Your task to perform on an android device: install app "Grab" Image 0: 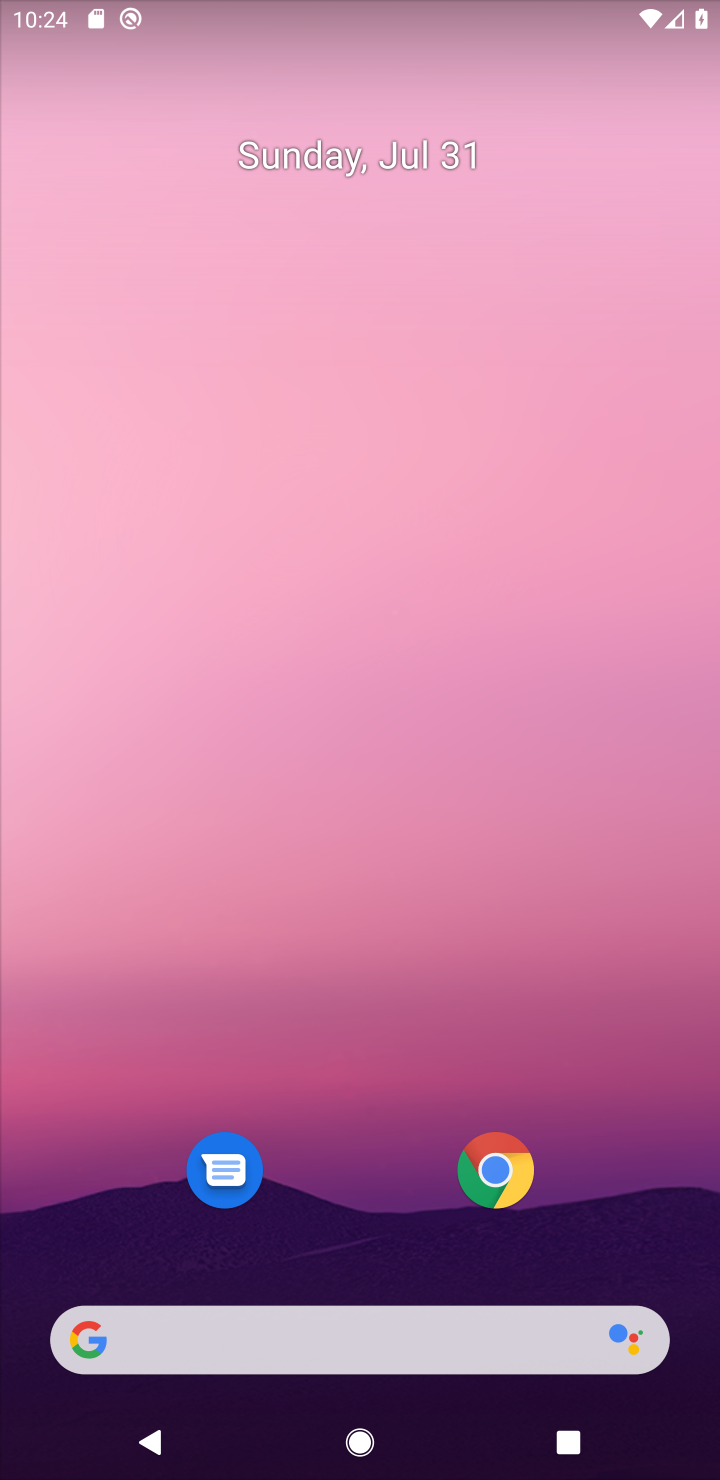
Step 0: drag from (662, 1269) to (194, 9)
Your task to perform on an android device: install app "Grab" Image 1: 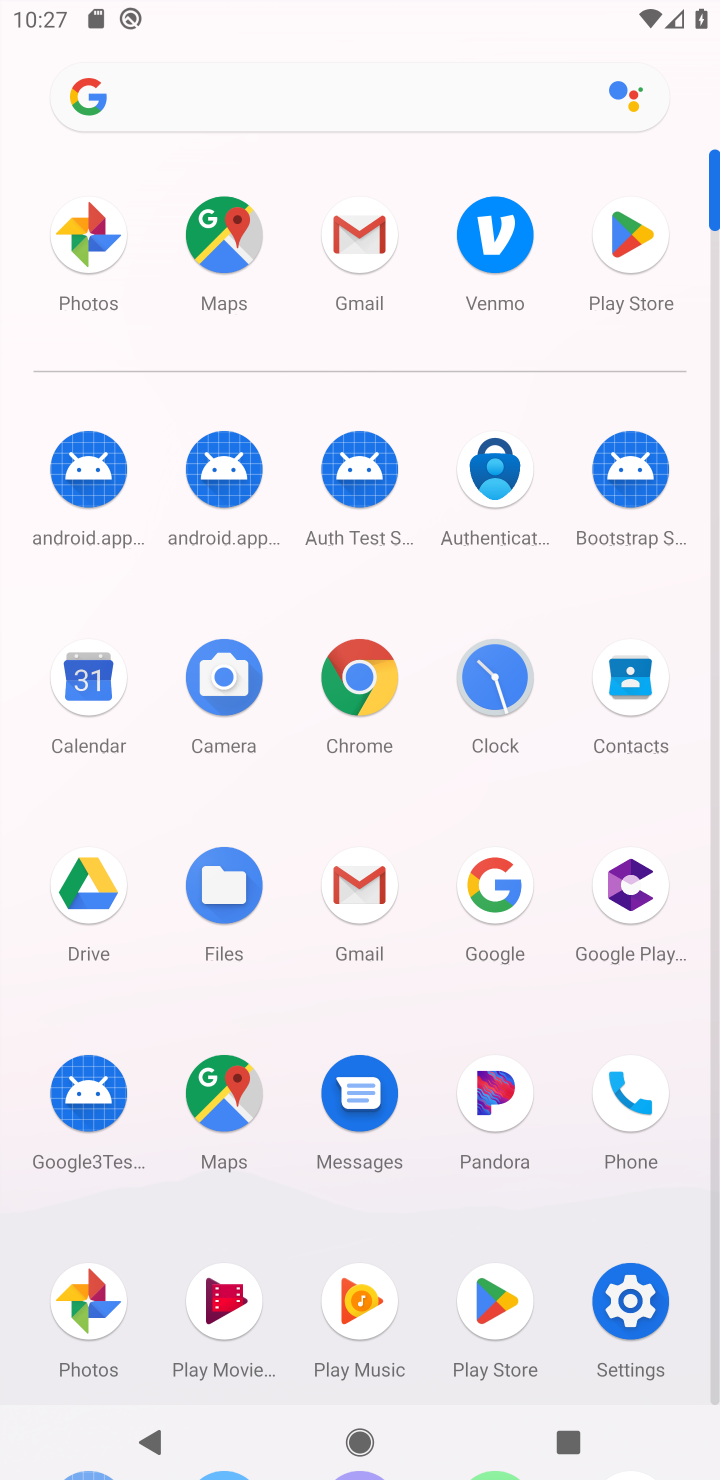
Step 1: click (638, 251)
Your task to perform on an android device: install app "Grab" Image 2: 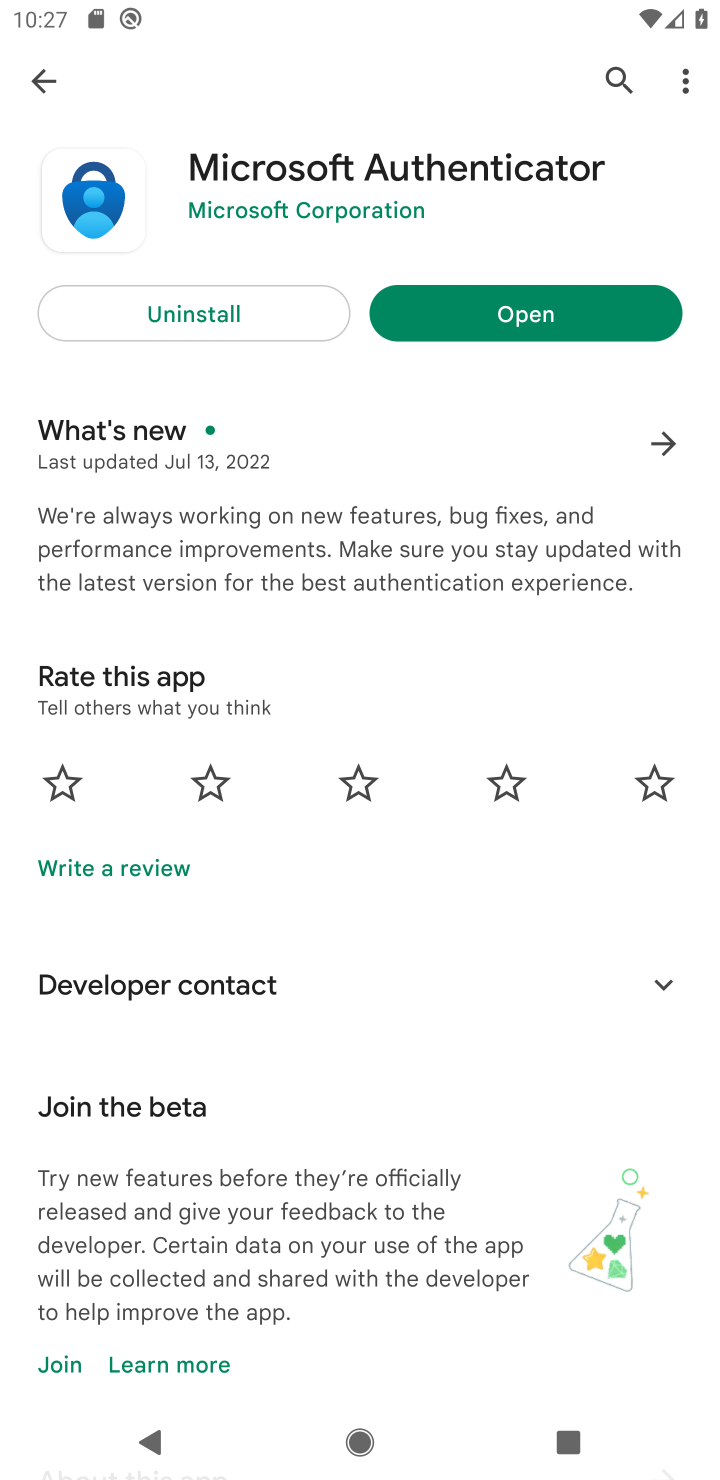
Step 2: press back button
Your task to perform on an android device: install app "Grab" Image 3: 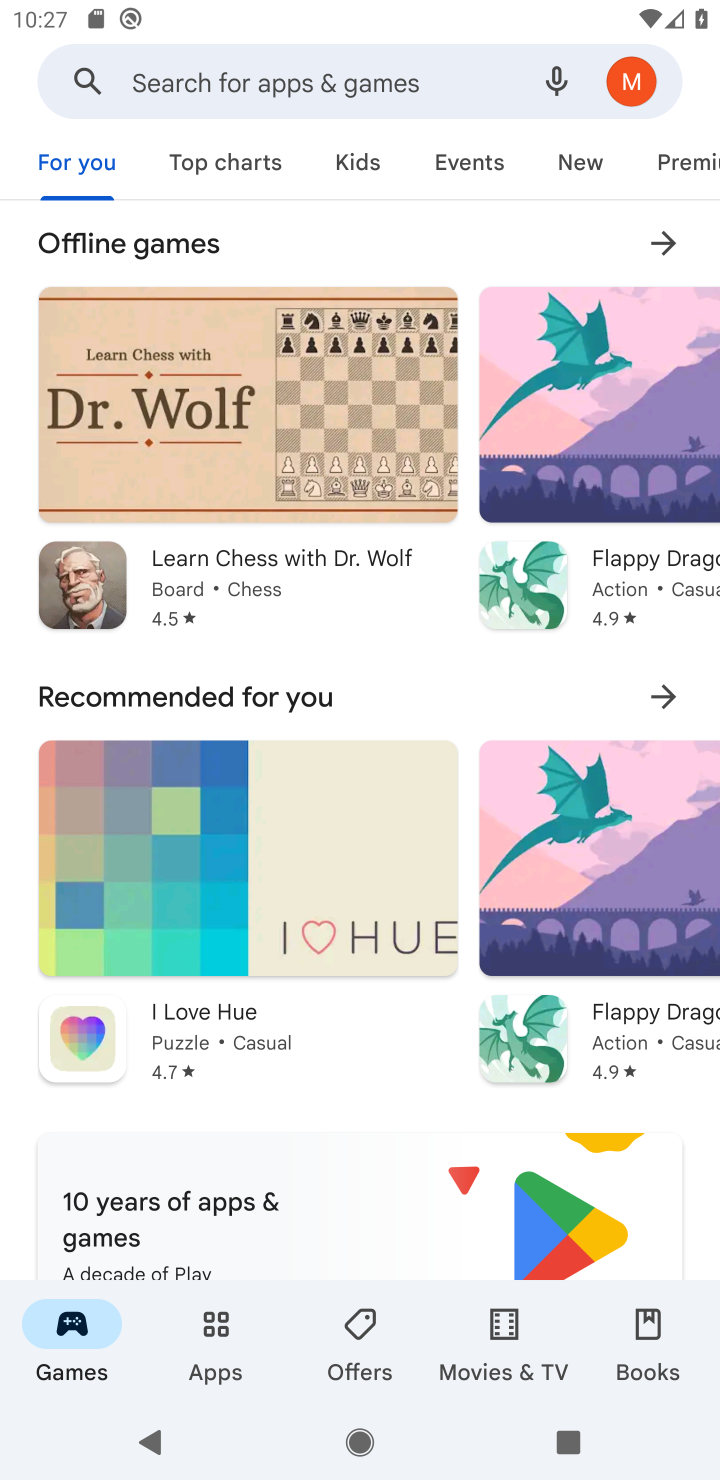
Step 3: click (293, 85)
Your task to perform on an android device: install app "Grab" Image 4: 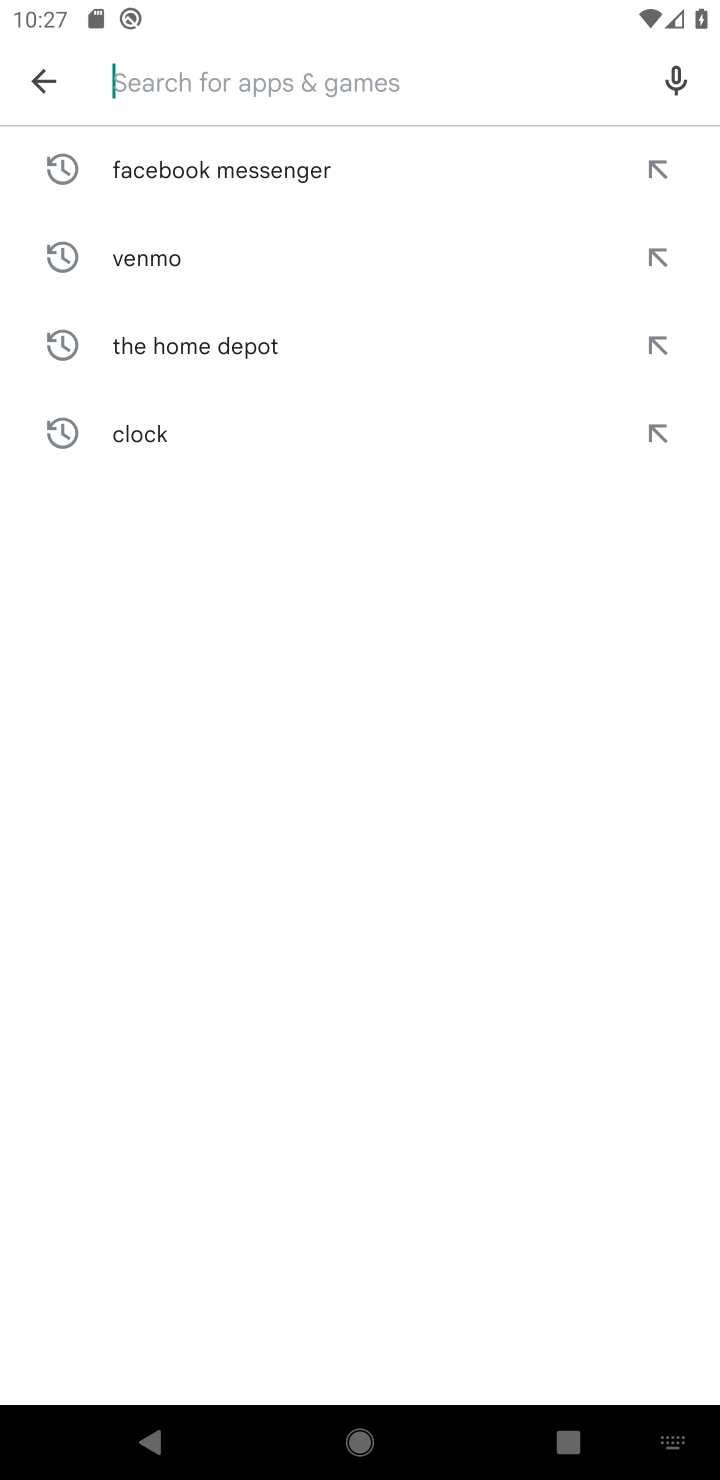
Step 4: type "Grab"
Your task to perform on an android device: install app "Grab" Image 5: 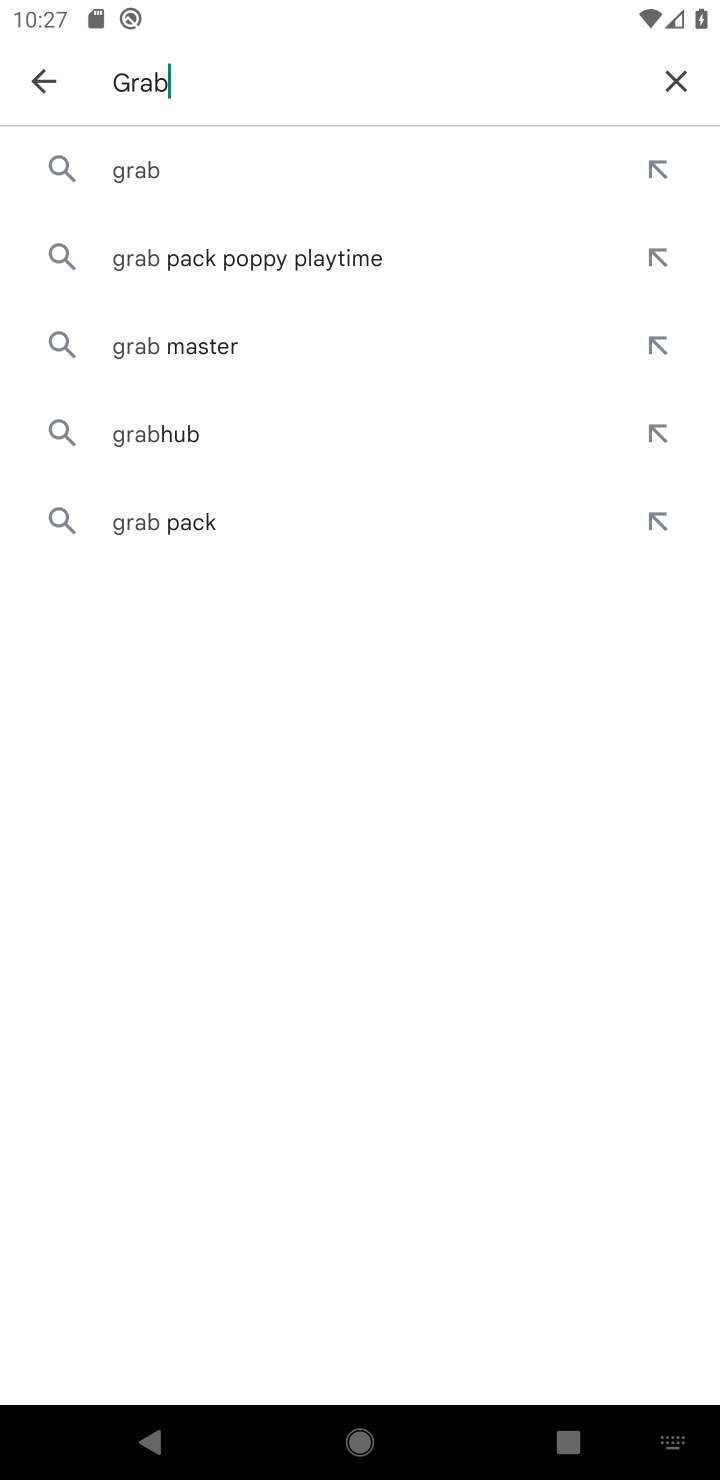
Step 5: click (166, 171)
Your task to perform on an android device: install app "Grab" Image 6: 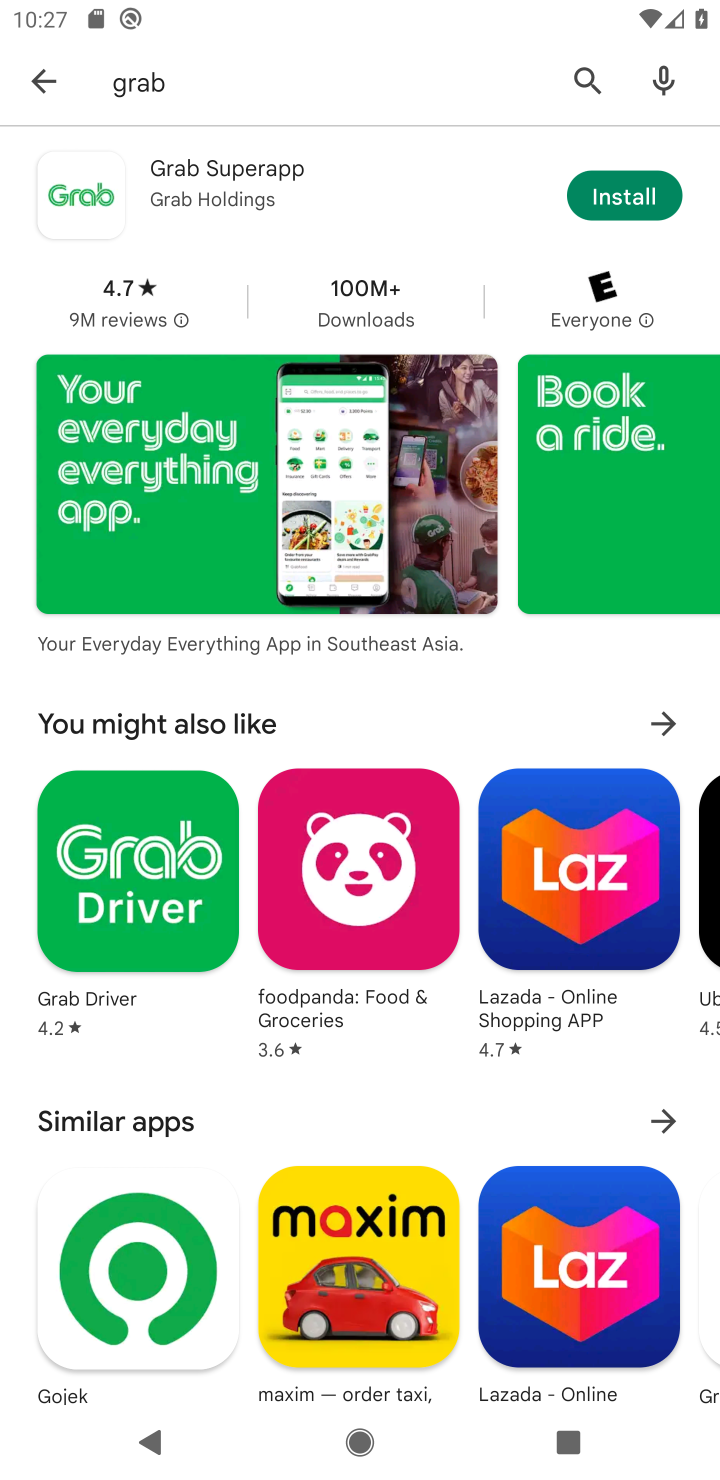
Step 6: click (639, 188)
Your task to perform on an android device: install app "Grab" Image 7: 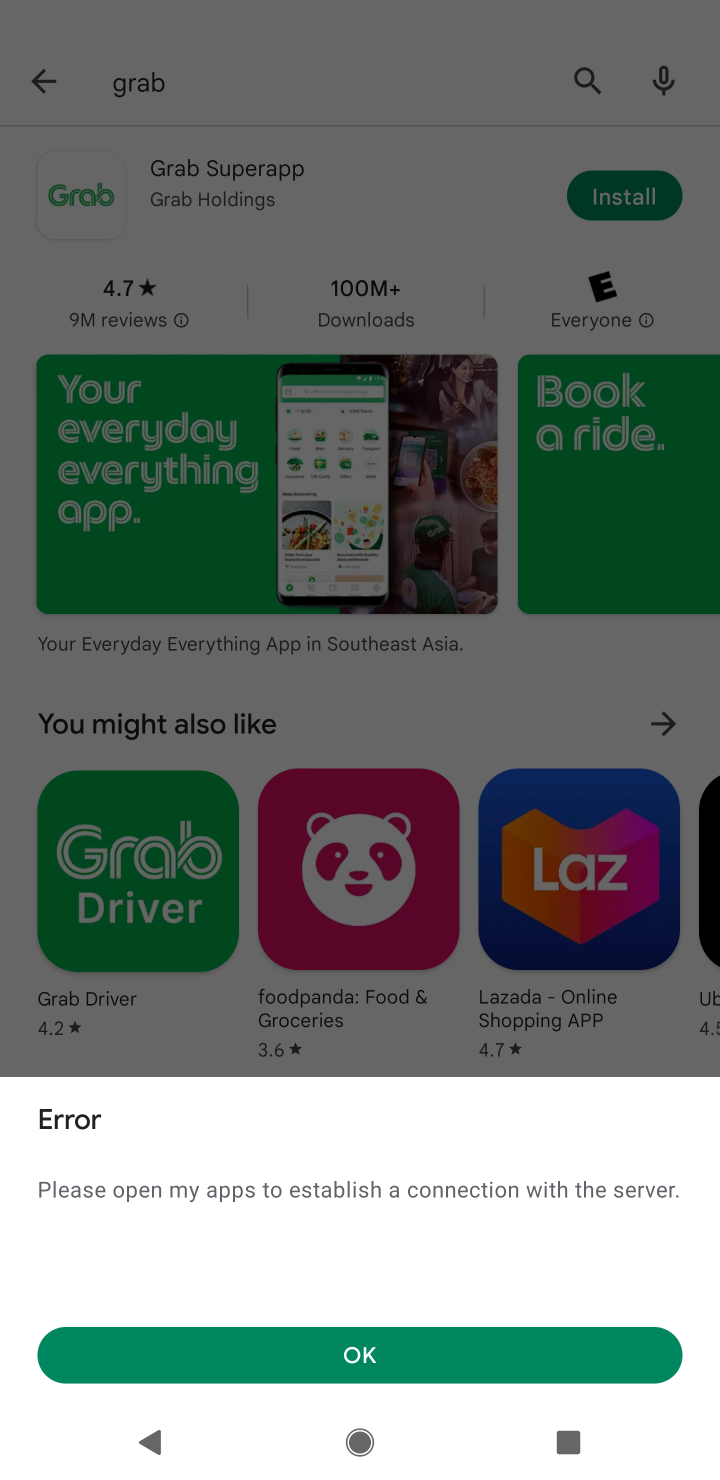
Step 7: task complete